Your task to perform on an android device: toggle notification dots Image 0: 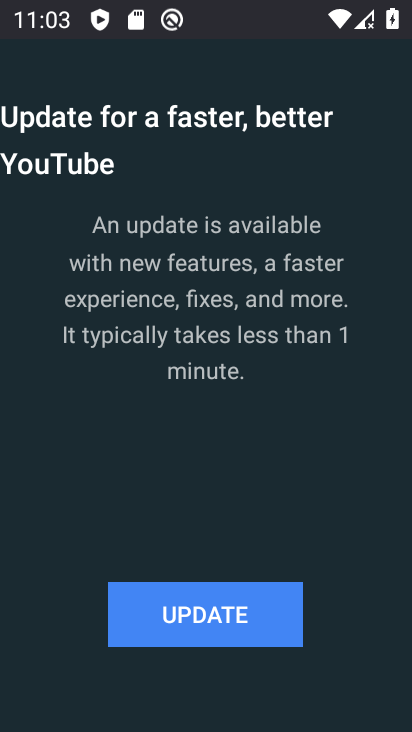
Step 0: press home button
Your task to perform on an android device: toggle notification dots Image 1: 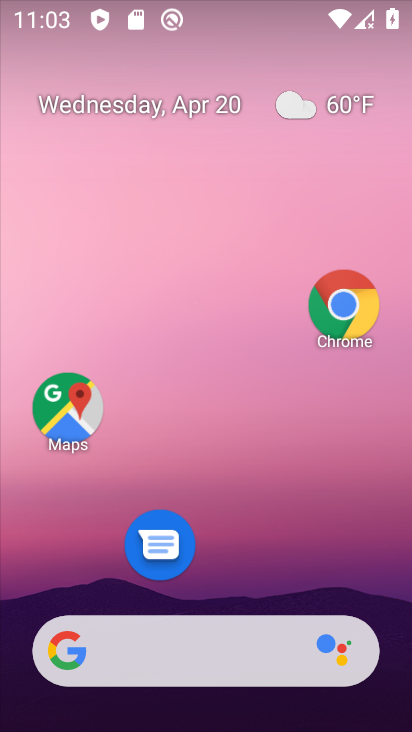
Step 1: drag from (262, 659) to (294, 205)
Your task to perform on an android device: toggle notification dots Image 2: 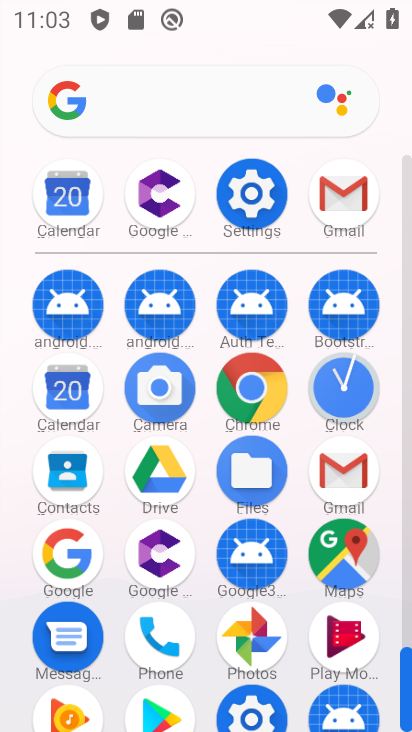
Step 2: click (255, 206)
Your task to perform on an android device: toggle notification dots Image 3: 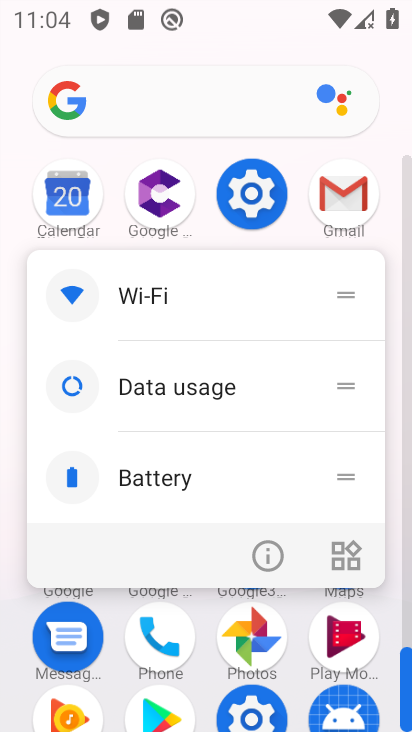
Step 3: click (264, 197)
Your task to perform on an android device: toggle notification dots Image 4: 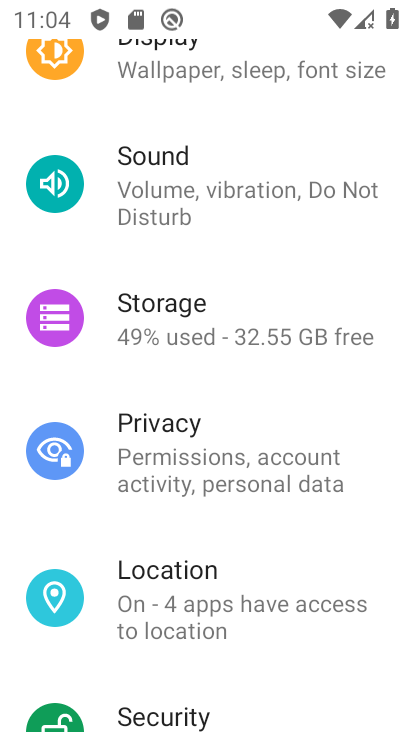
Step 4: drag from (223, 301) to (206, 655)
Your task to perform on an android device: toggle notification dots Image 5: 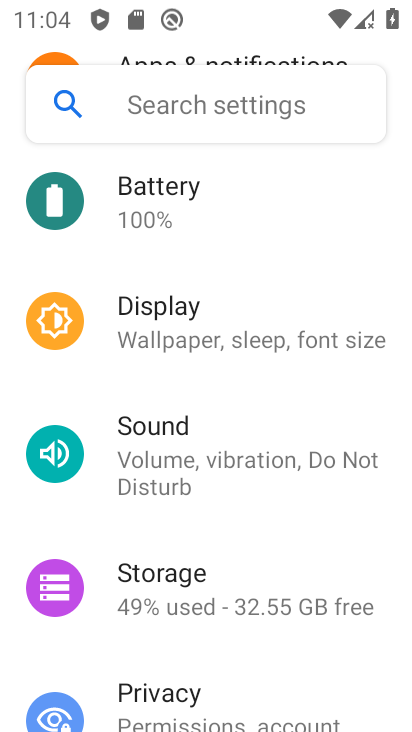
Step 5: drag from (213, 254) to (171, 673)
Your task to perform on an android device: toggle notification dots Image 6: 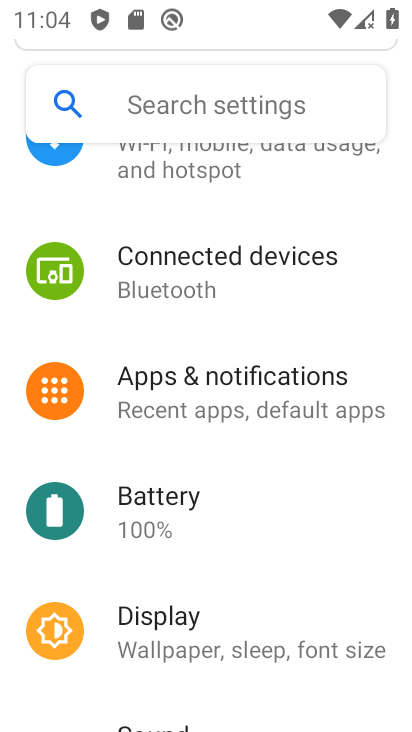
Step 6: click (218, 414)
Your task to perform on an android device: toggle notification dots Image 7: 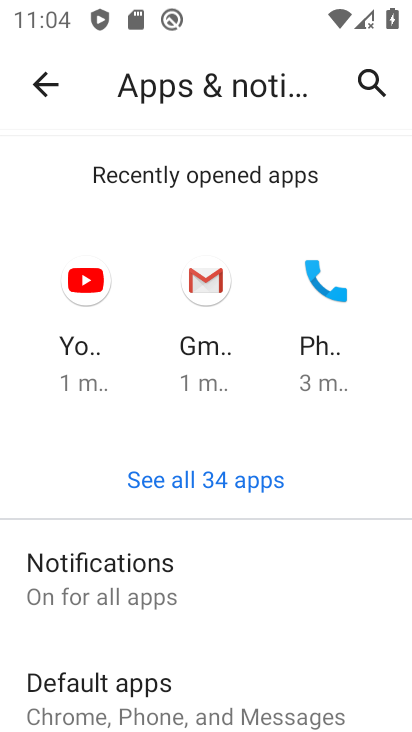
Step 7: drag from (162, 583) to (215, 372)
Your task to perform on an android device: toggle notification dots Image 8: 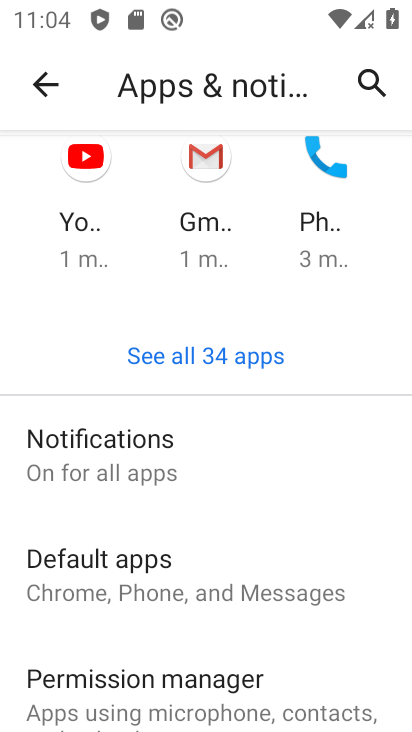
Step 8: click (209, 457)
Your task to perform on an android device: toggle notification dots Image 9: 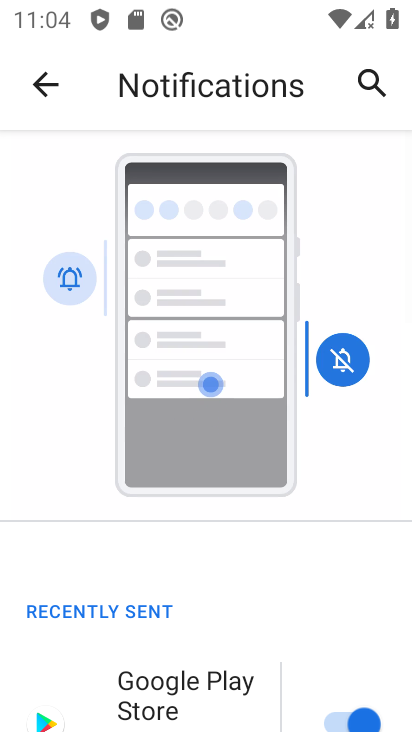
Step 9: drag from (218, 541) to (293, 123)
Your task to perform on an android device: toggle notification dots Image 10: 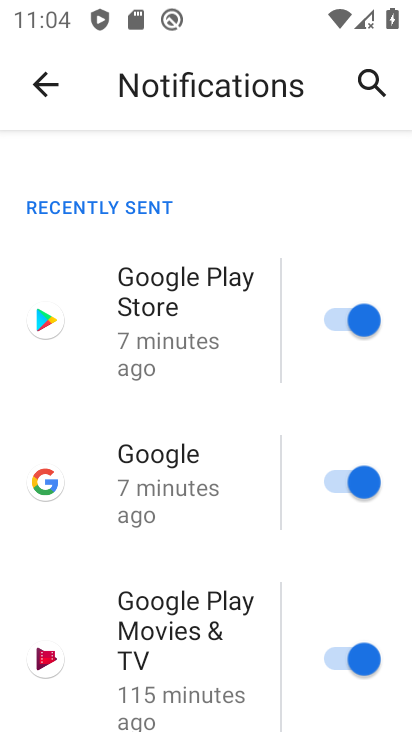
Step 10: drag from (169, 470) to (242, 74)
Your task to perform on an android device: toggle notification dots Image 11: 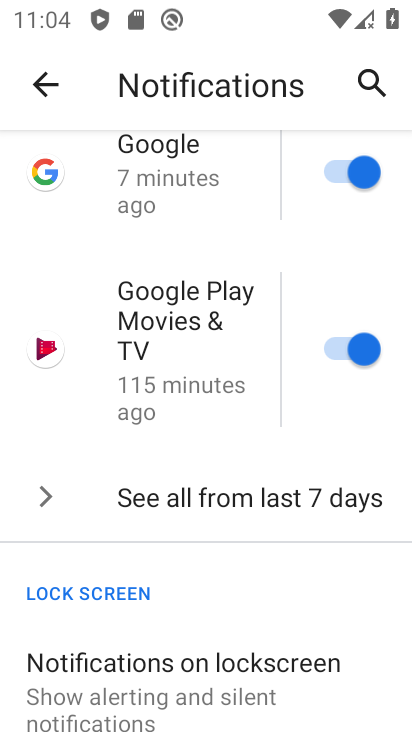
Step 11: drag from (176, 535) to (246, 160)
Your task to perform on an android device: toggle notification dots Image 12: 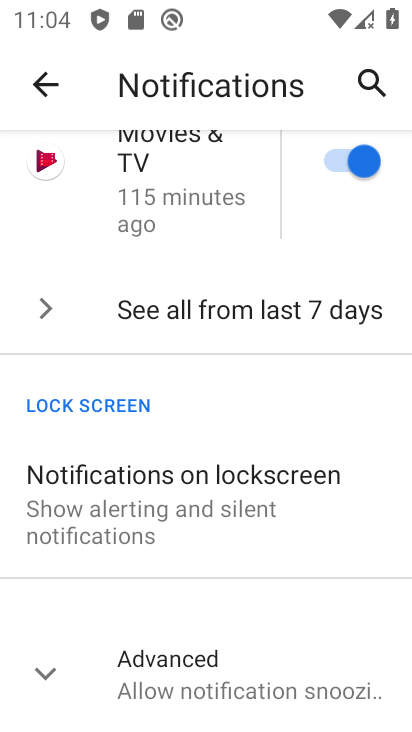
Step 12: drag from (178, 551) to (217, 304)
Your task to perform on an android device: toggle notification dots Image 13: 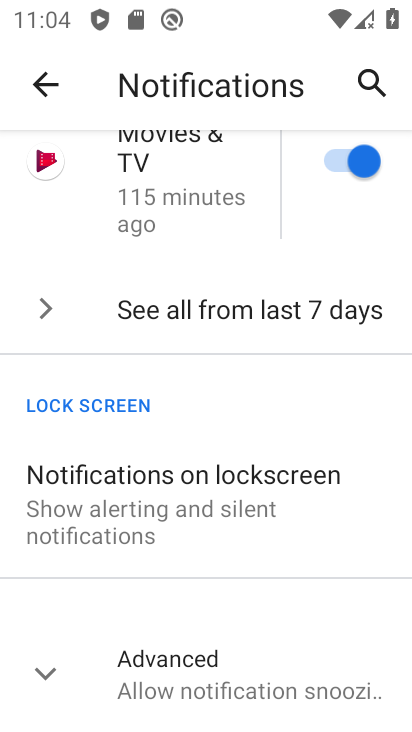
Step 13: click (197, 669)
Your task to perform on an android device: toggle notification dots Image 14: 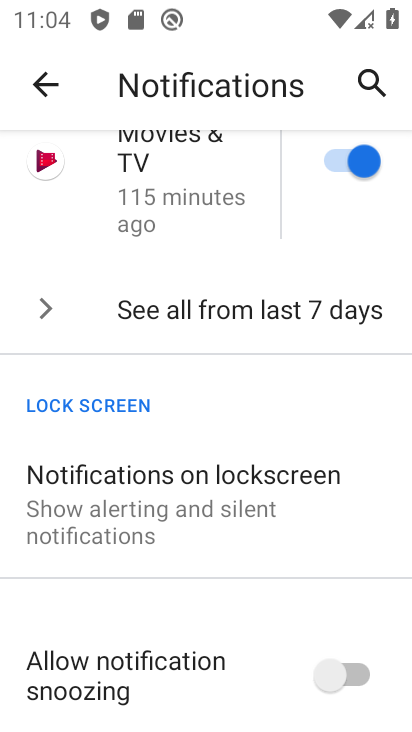
Step 14: drag from (181, 513) to (244, 173)
Your task to perform on an android device: toggle notification dots Image 15: 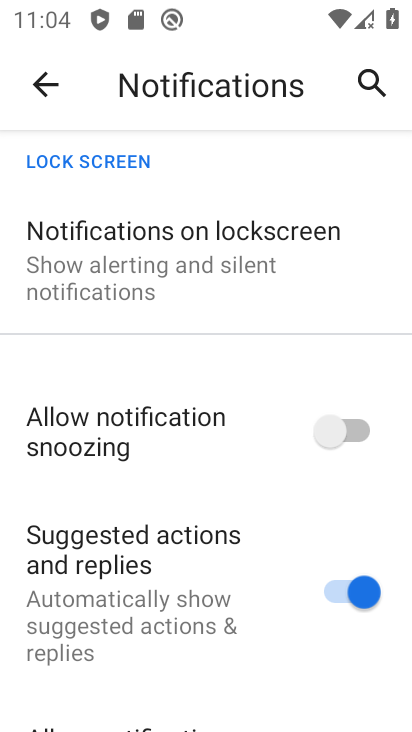
Step 15: drag from (244, 545) to (320, 182)
Your task to perform on an android device: toggle notification dots Image 16: 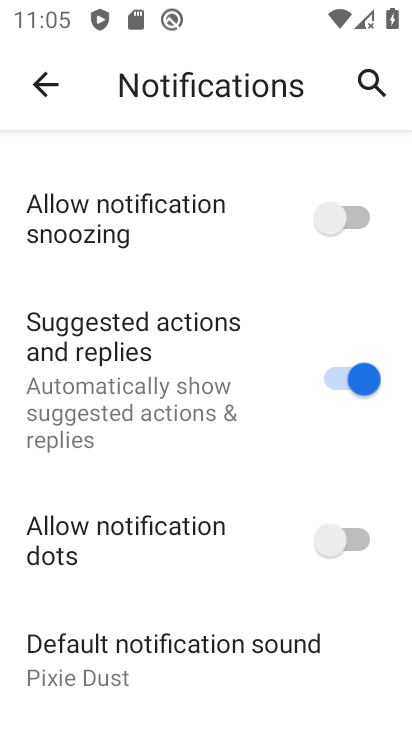
Step 16: drag from (184, 574) to (229, 315)
Your task to perform on an android device: toggle notification dots Image 17: 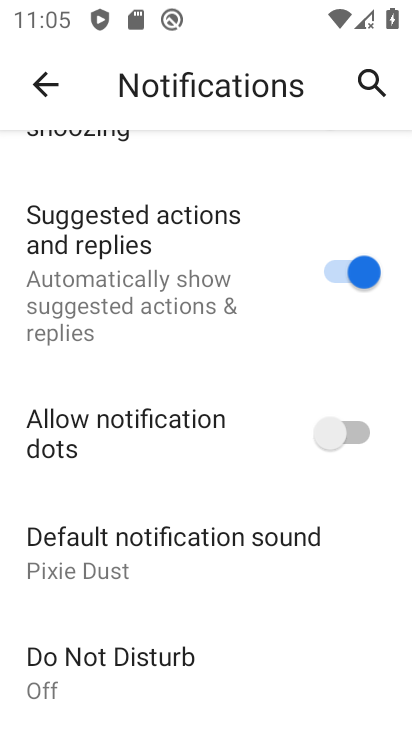
Step 17: drag from (195, 612) to (251, 261)
Your task to perform on an android device: toggle notification dots Image 18: 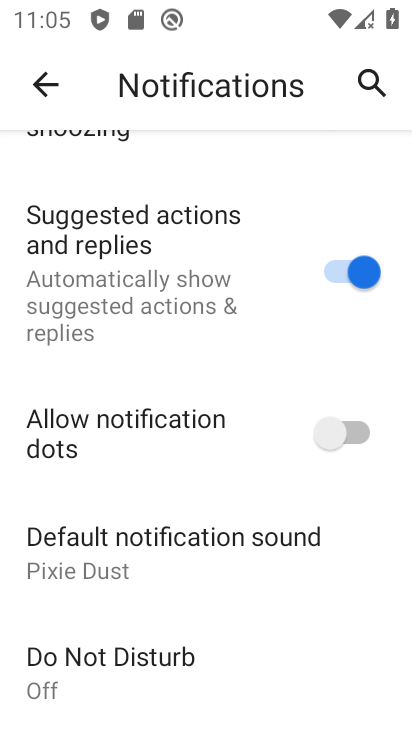
Step 18: drag from (181, 498) to (187, 441)
Your task to perform on an android device: toggle notification dots Image 19: 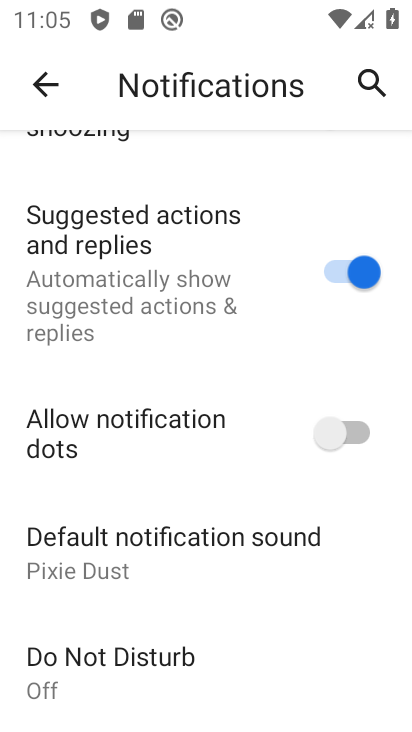
Step 19: click (349, 443)
Your task to perform on an android device: toggle notification dots Image 20: 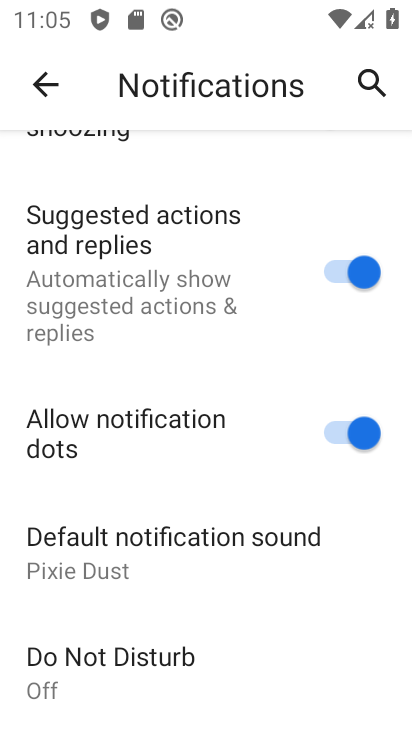
Step 20: task complete